Your task to perform on an android device: Check the weather Image 0: 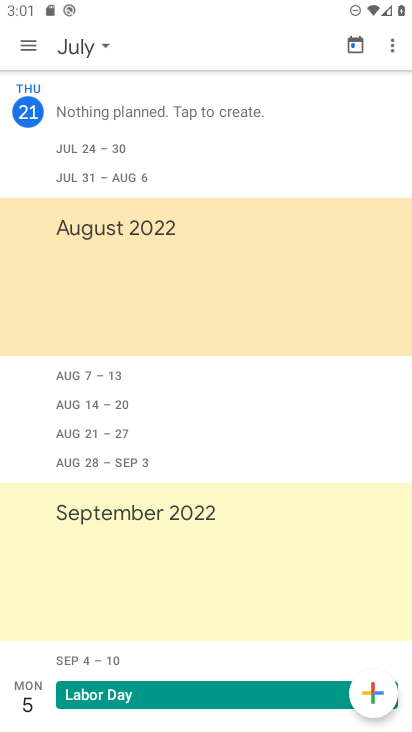
Step 0: press back button
Your task to perform on an android device: Check the weather Image 1: 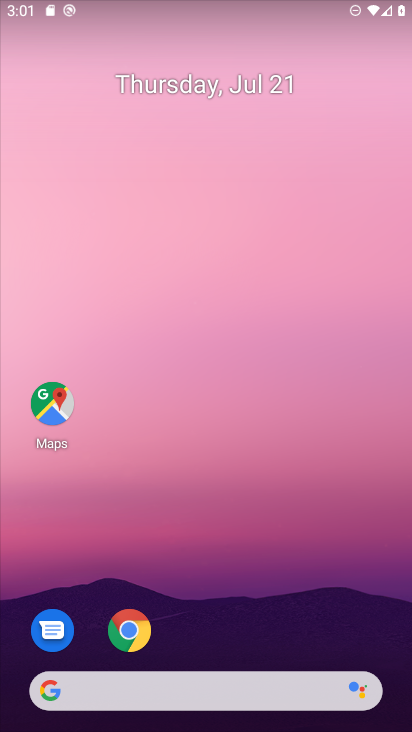
Step 1: click (187, 687)
Your task to perform on an android device: Check the weather Image 2: 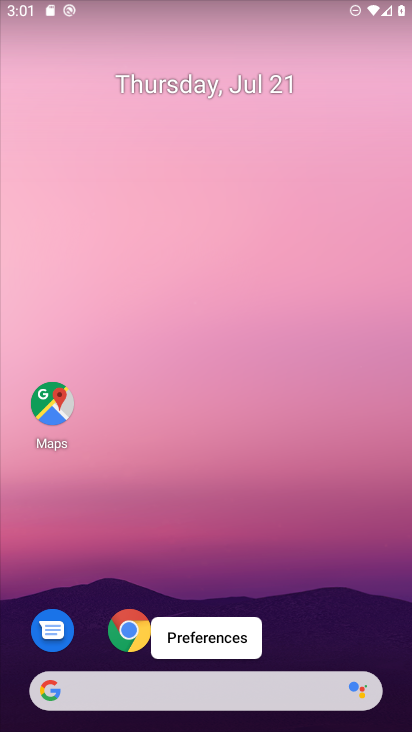
Step 2: click (160, 683)
Your task to perform on an android device: Check the weather Image 3: 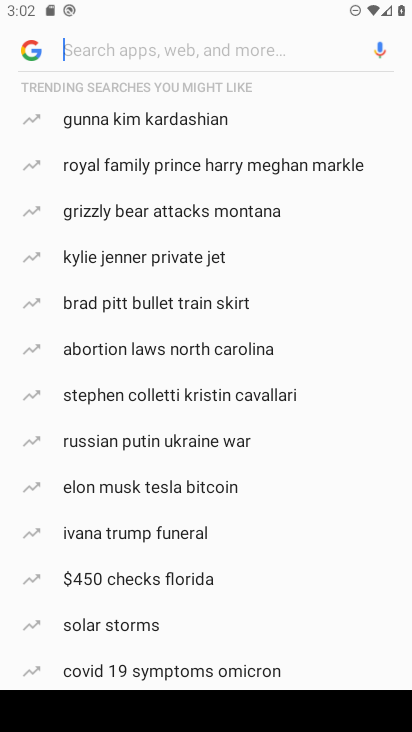
Step 3: click (104, 58)
Your task to perform on an android device: Check the weather Image 4: 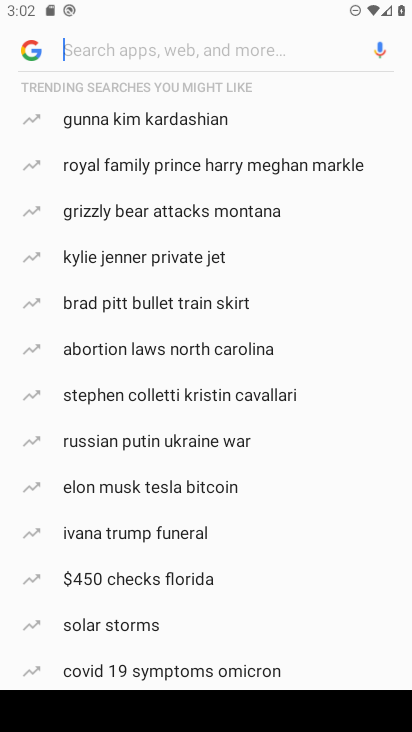
Step 4: type "weather"
Your task to perform on an android device: Check the weather Image 5: 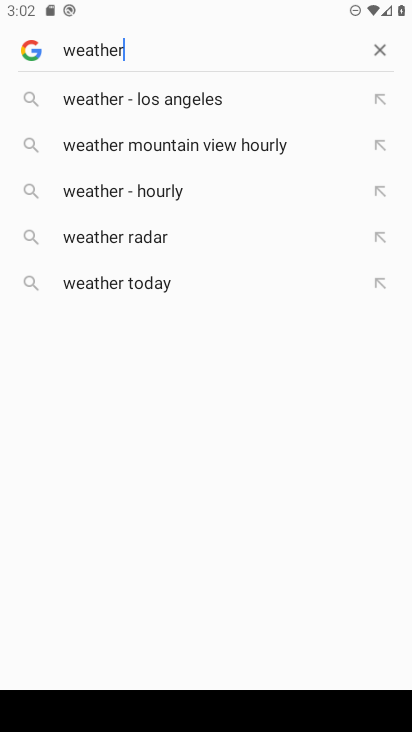
Step 5: click (179, 282)
Your task to perform on an android device: Check the weather Image 6: 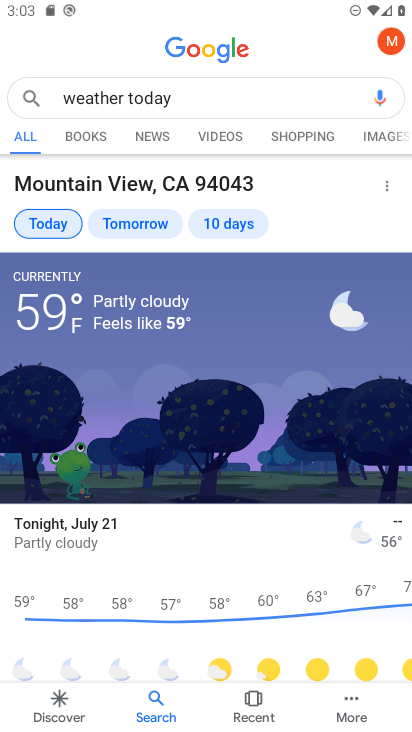
Step 6: task complete